Your task to perform on an android device: refresh tabs in the chrome app Image 0: 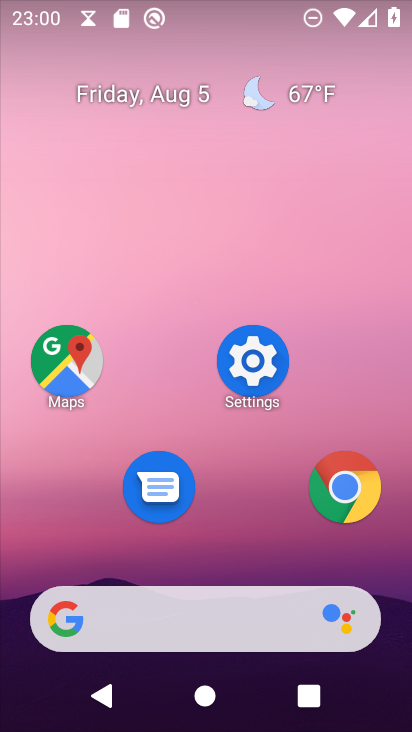
Step 0: click (330, 479)
Your task to perform on an android device: refresh tabs in the chrome app Image 1: 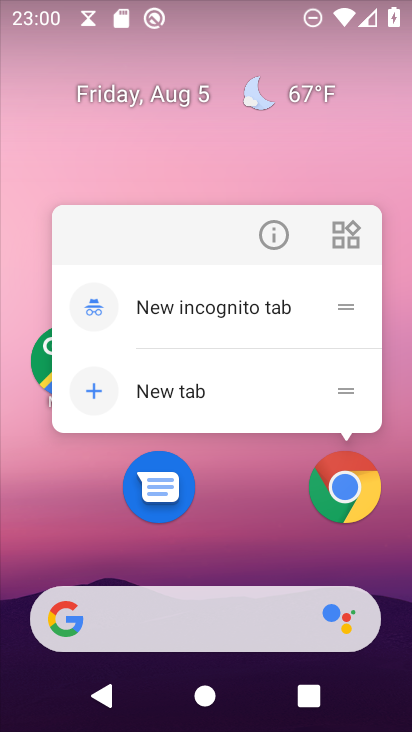
Step 1: click (350, 487)
Your task to perform on an android device: refresh tabs in the chrome app Image 2: 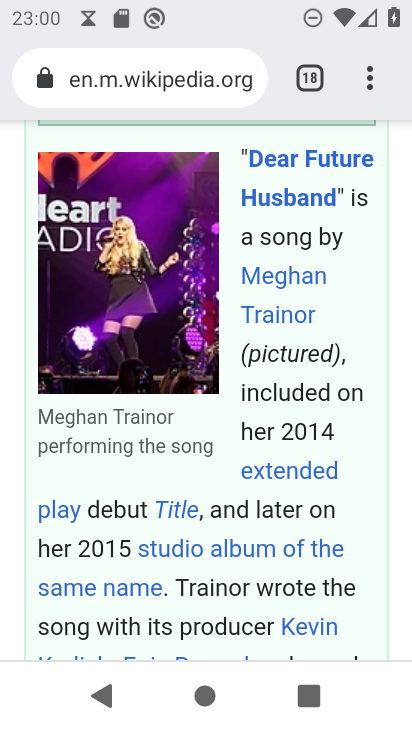
Step 2: click (370, 78)
Your task to perform on an android device: refresh tabs in the chrome app Image 3: 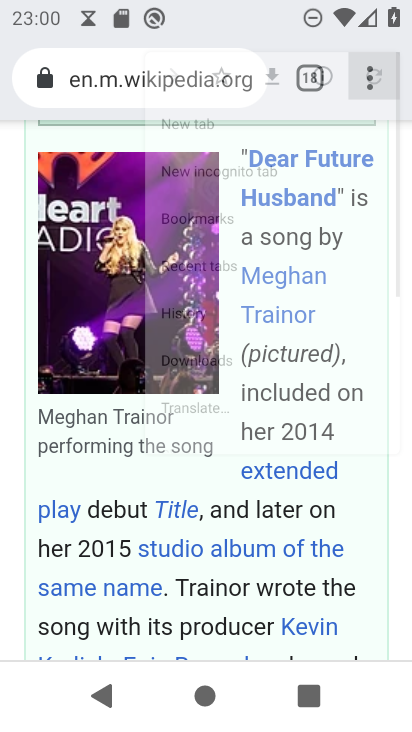
Step 3: click (363, 79)
Your task to perform on an android device: refresh tabs in the chrome app Image 4: 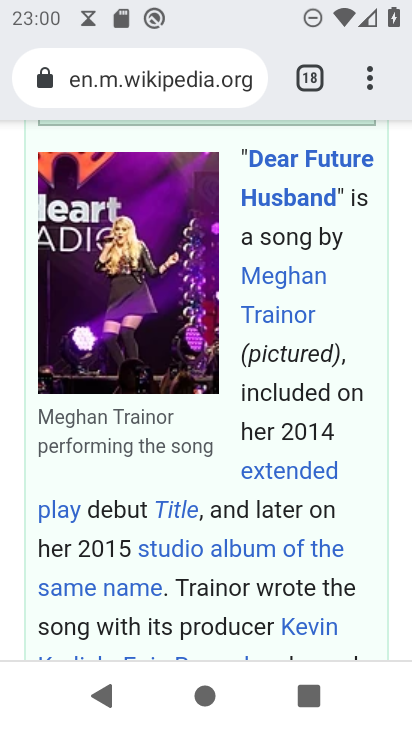
Step 4: task complete